Your task to perform on an android device: set an alarm Image 0: 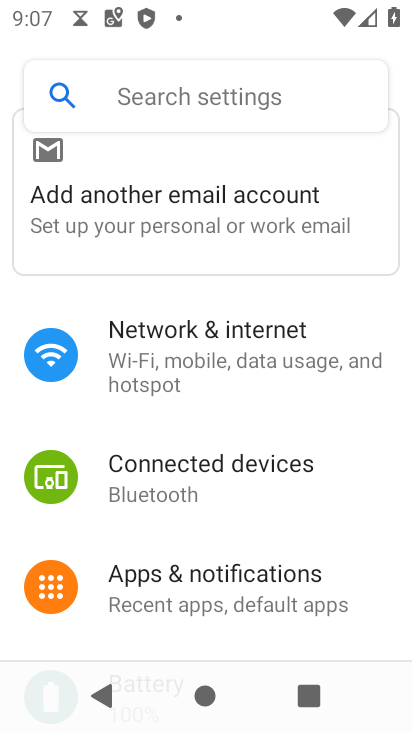
Step 0: press home button
Your task to perform on an android device: set an alarm Image 1: 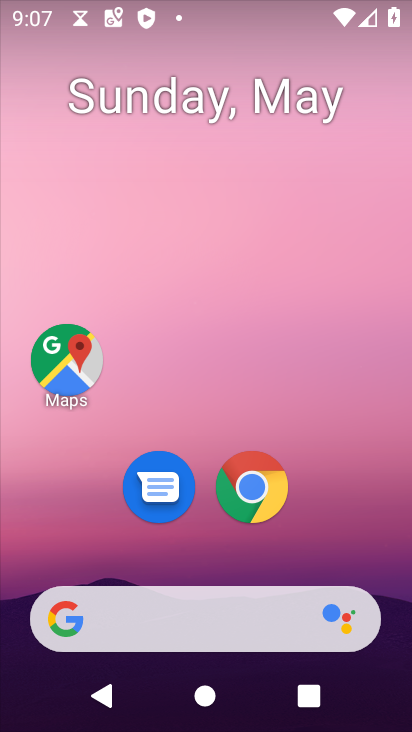
Step 1: drag from (341, 530) to (337, 109)
Your task to perform on an android device: set an alarm Image 2: 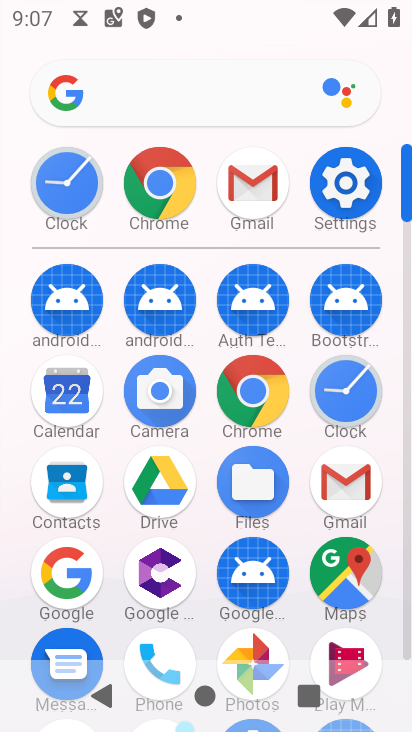
Step 2: click (347, 405)
Your task to perform on an android device: set an alarm Image 3: 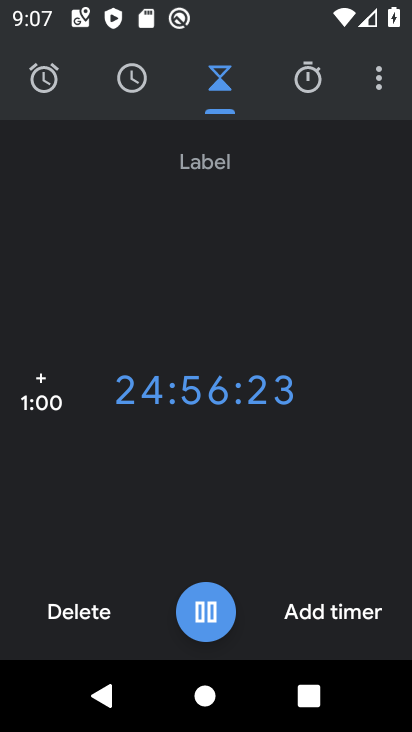
Step 3: click (52, 88)
Your task to perform on an android device: set an alarm Image 4: 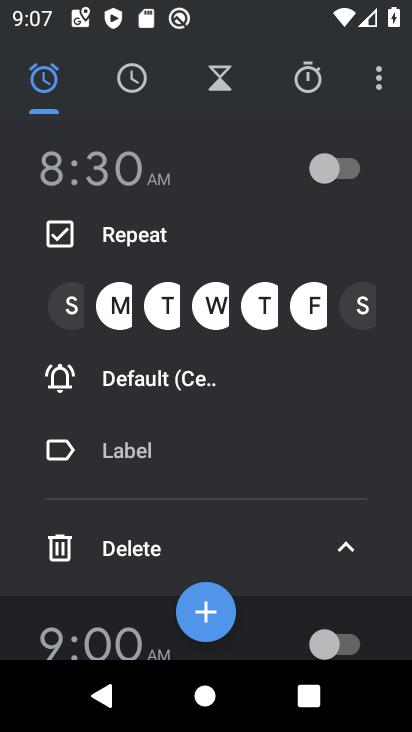
Step 4: click (346, 186)
Your task to perform on an android device: set an alarm Image 5: 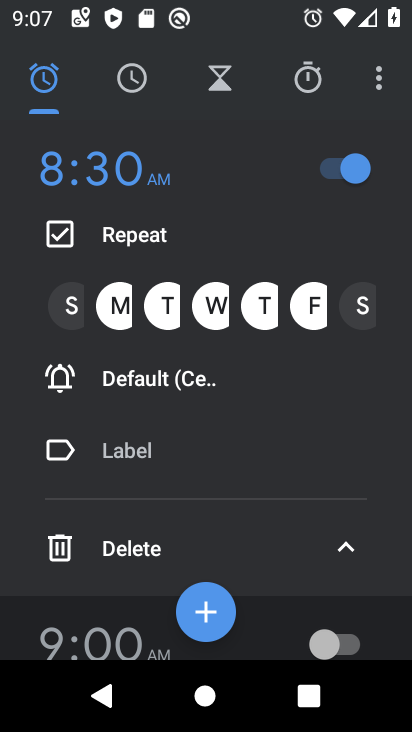
Step 5: task complete